Your task to perform on an android device: open chrome privacy settings Image 0: 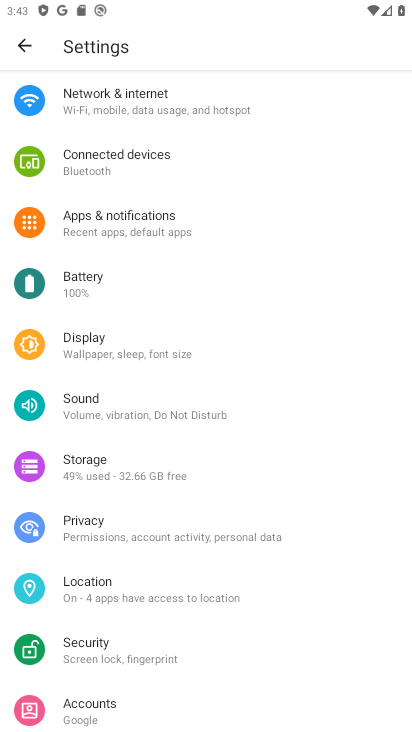
Step 0: press home button
Your task to perform on an android device: open chrome privacy settings Image 1: 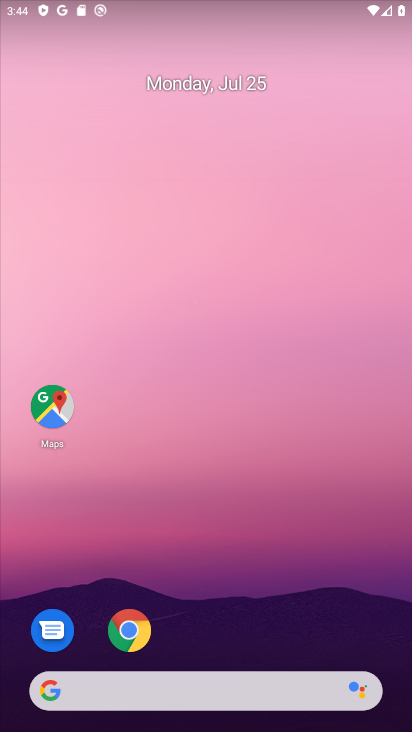
Step 1: click (129, 632)
Your task to perform on an android device: open chrome privacy settings Image 2: 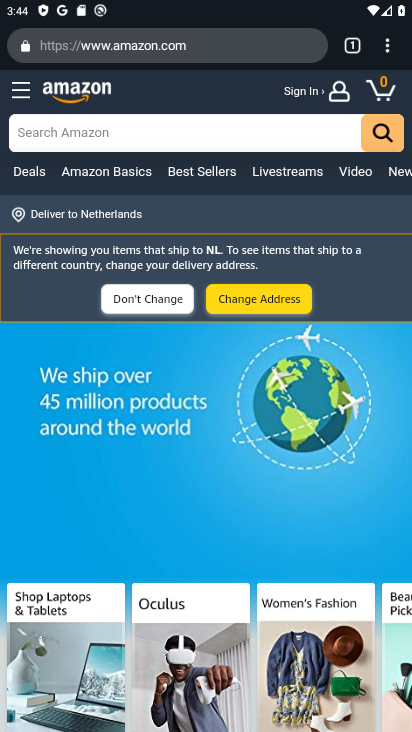
Step 2: click (389, 50)
Your task to perform on an android device: open chrome privacy settings Image 3: 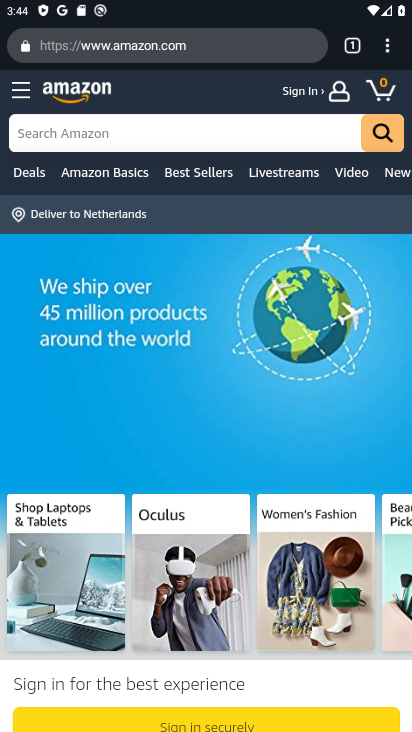
Step 3: click (389, 50)
Your task to perform on an android device: open chrome privacy settings Image 4: 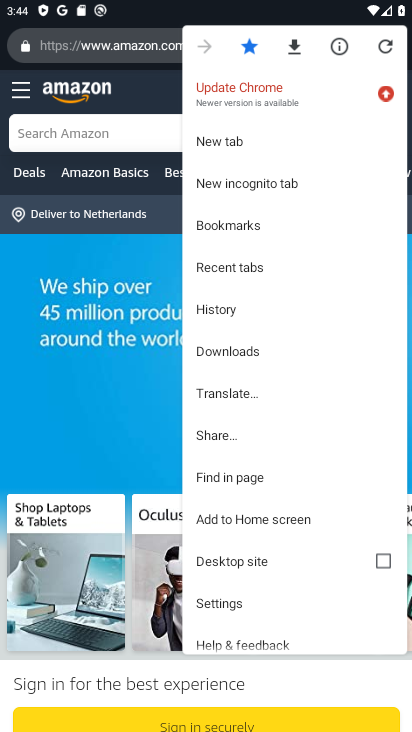
Step 4: click (220, 602)
Your task to perform on an android device: open chrome privacy settings Image 5: 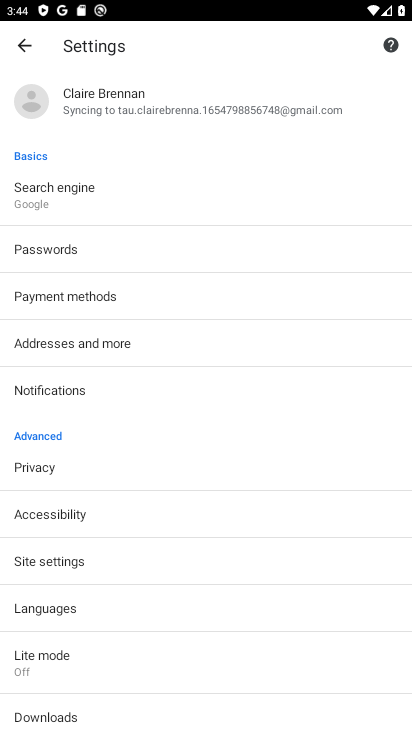
Step 5: click (30, 465)
Your task to perform on an android device: open chrome privacy settings Image 6: 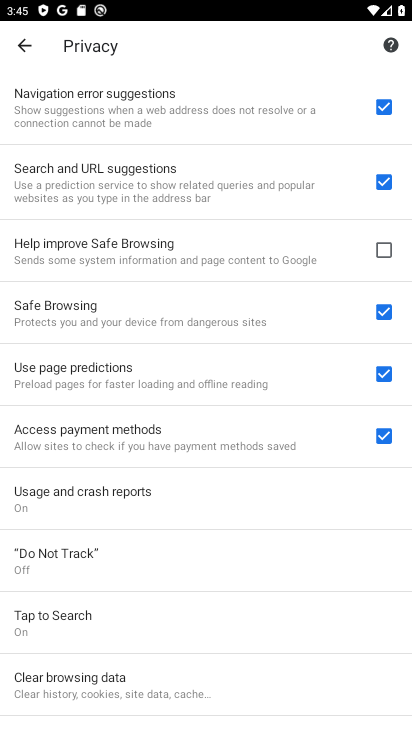
Step 6: task complete